Your task to perform on an android device: Open wifi settings Image 0: 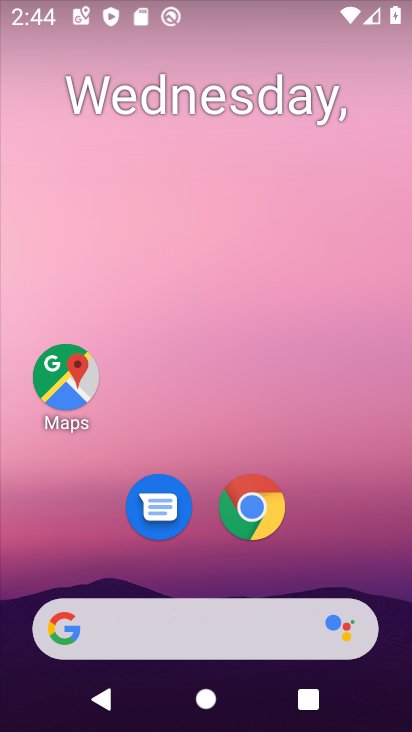
Step 0: drag from (318, 554) to (296, 288)
Your task to perform on an android device: Open wifi settings Image 1: 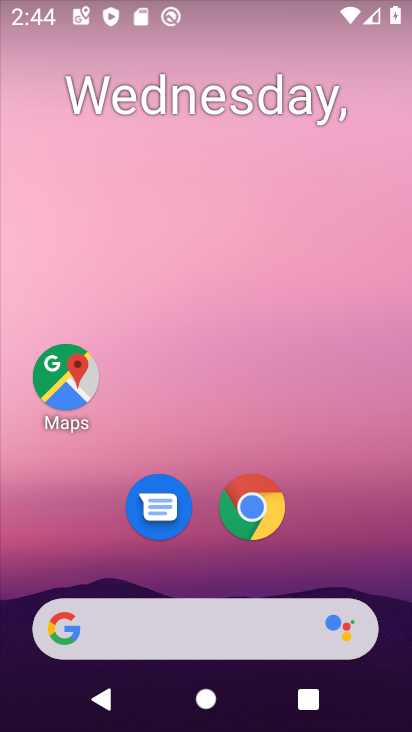
Step 1: drag from (297, 554) to (344, 203)
Your task to perform on an android device: Open wifi settings Image 2: 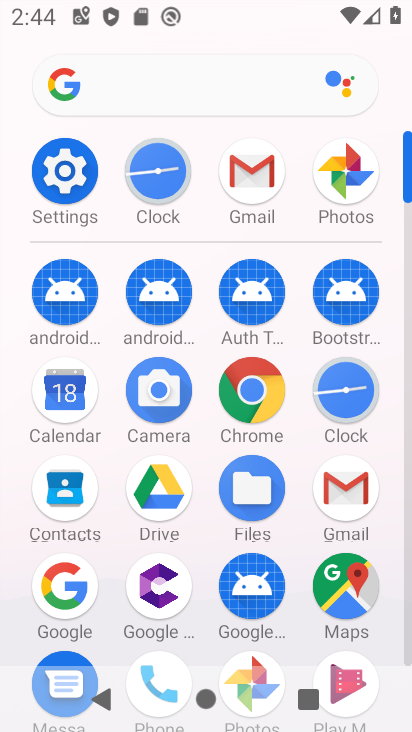
Step 2: click (67, 178)
Your task to perform on an android device: Open wifi settings Image 3: 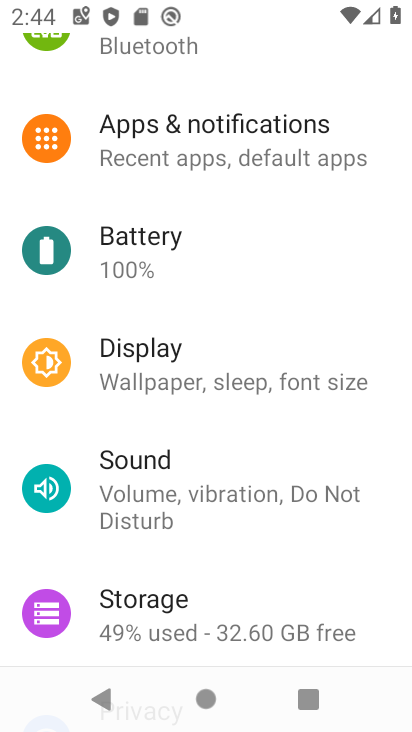
Step 3: drag from (213, 207) to (305, 575)
Your task to perform on an android device: Open wifi settings Image 4: 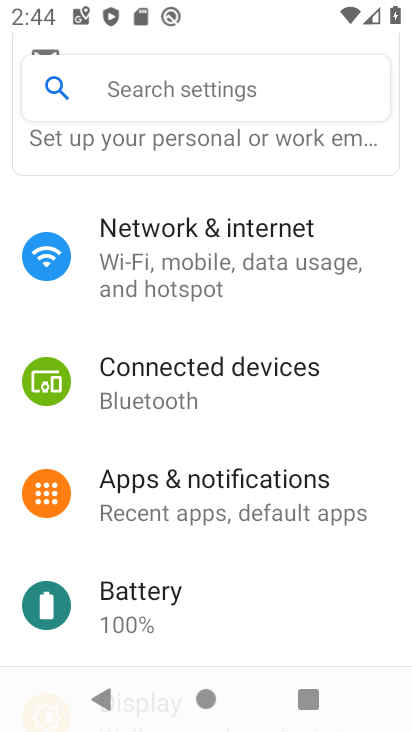
Step 4: click (252, 278)
Your task to perform on an android device: Open wifi settings Image 5: 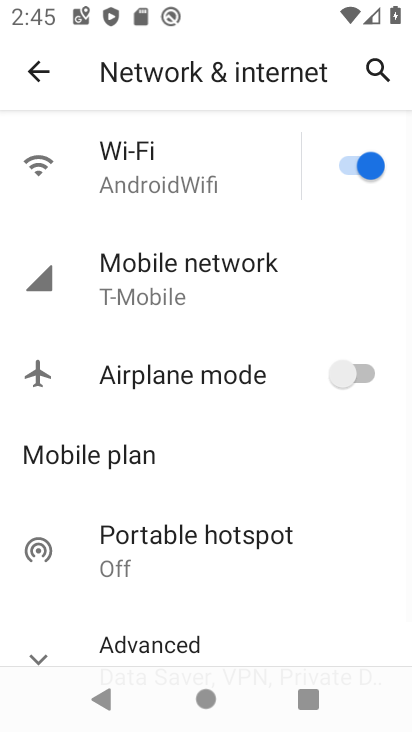
Step 5: click (187, 204)
Your task to perform on an android device: Open wifi settings Image 6: 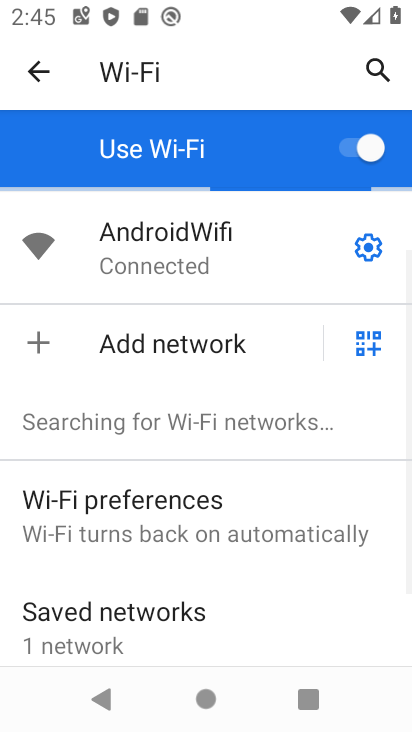
Step 6: task complete